Your task to perform on an android device: Check the weather Image 0: 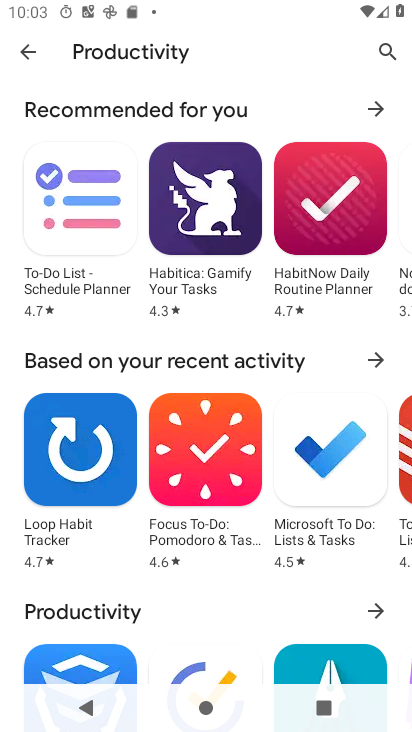
Step 0: press home button
Your task to perform on an android device: Check the weather Image 1: 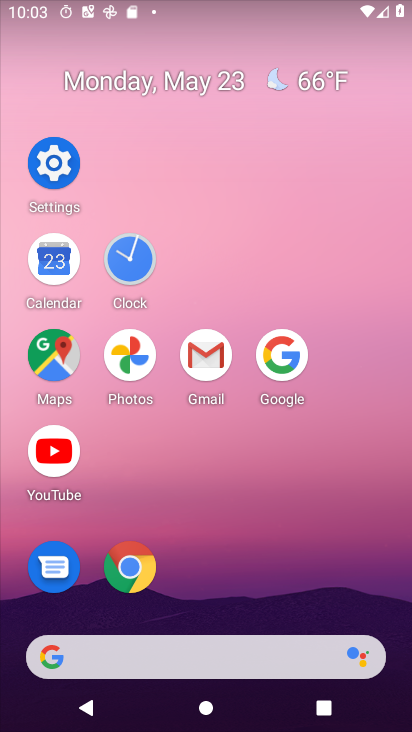
Step 1: click (274, 354)
Your task to perform on an android device: Check the weather Image 2: 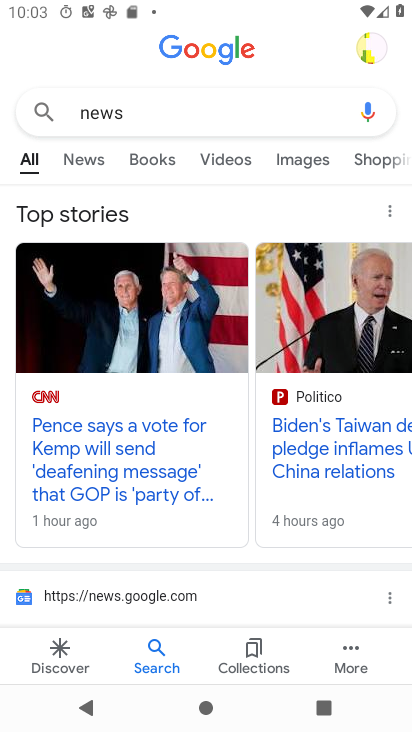
Step 2: click (177, 97)
Your task to perform on an android device: Check the weather Image 3: 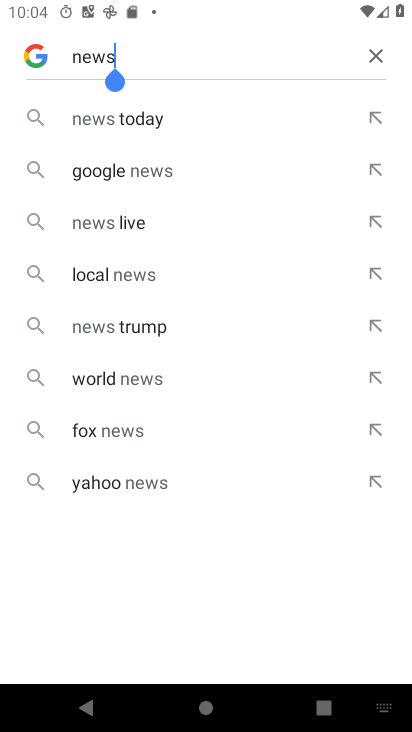
Step 3: click (372, 51)
Your task to perform on an android device: Check the weather Image 4: 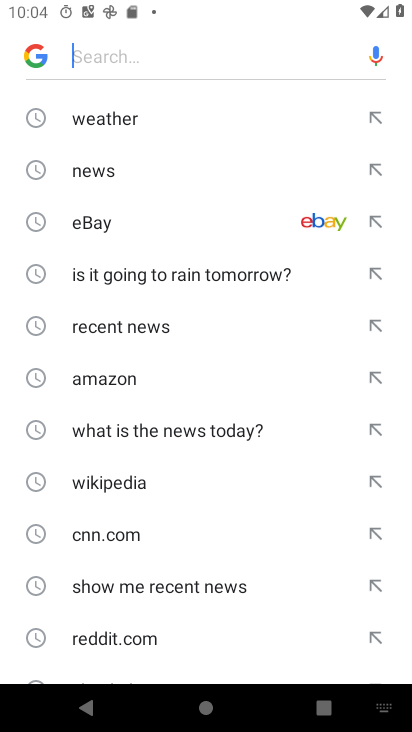
Step 4: click (126, 108)
Your task to perform on an android device: Check the weather Image 5: 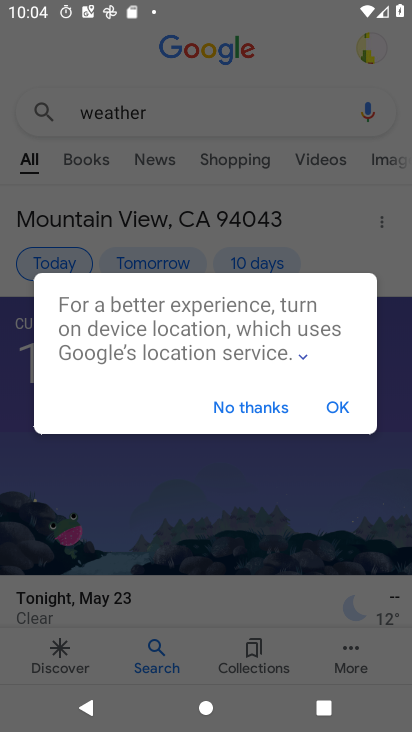
Step 5: click (340, 407)
Your task to perform on an android device: Check the weather Image 6: 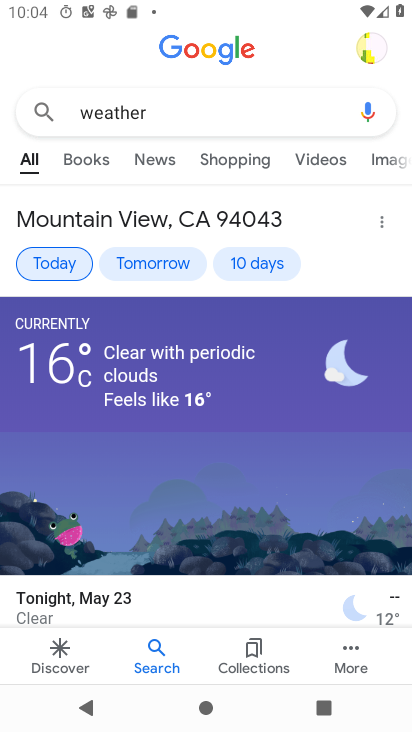
Step 6: task complete